Your task to perform on an android device: Open the phone app and click the voicemail tab. Image 0: 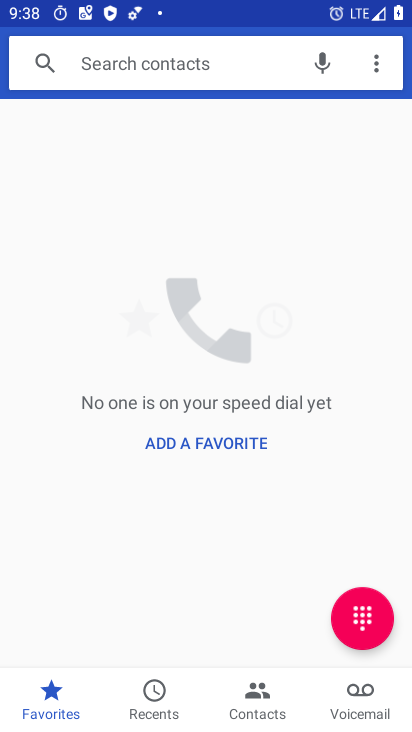
Step 0: press home button
Your task to perform on an android device: Open the phone app and click the voicemail tab. Image 1: 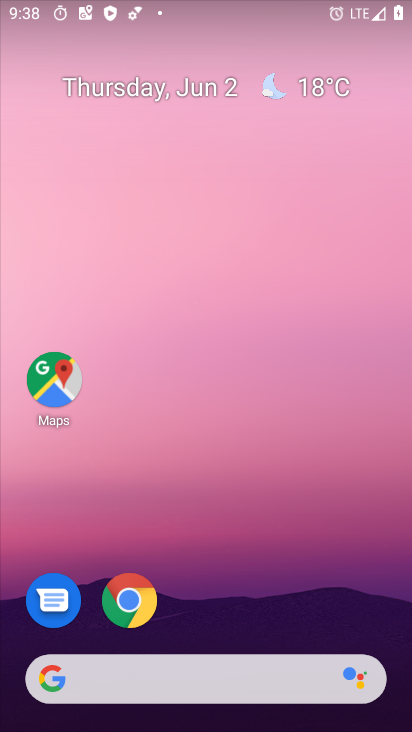
Step 1: drag from (367, 583) to (367, 254)
Your task to perform on an android device: Open the phone app and click the voicemail tab. Image 2: 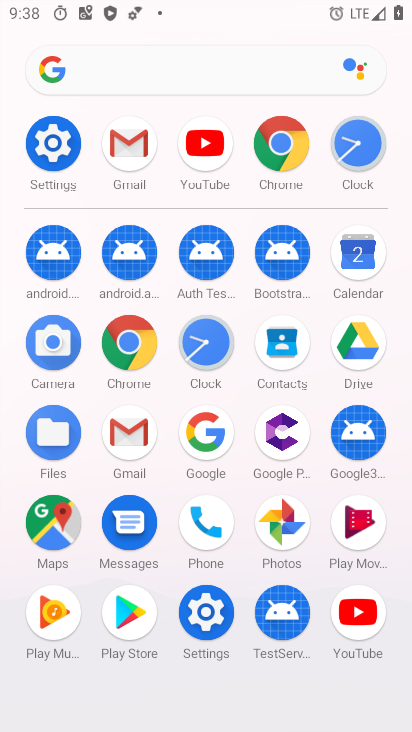
Step 2: click (372, 536)
Your task to perform on an android device: Open the phone app and click the voicemail tab. Image 3: 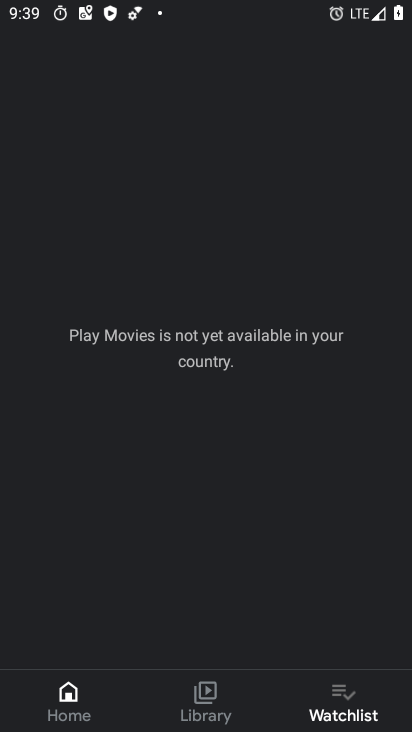
Step 3: task complete